Your task to perform on an android device: Open the phone app and click the voicemail tab. Image 0: 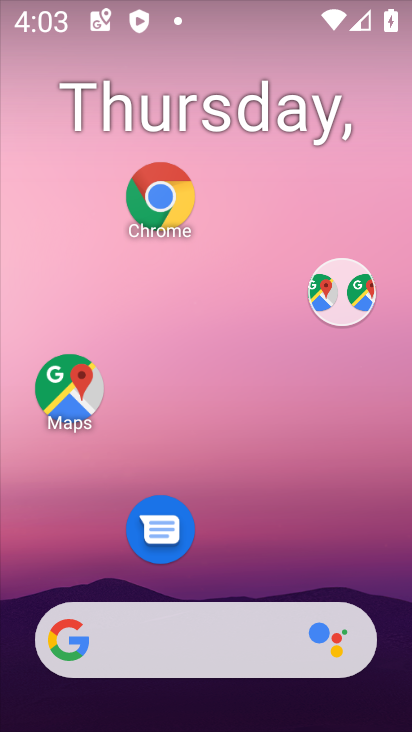
Step 0: drag from (210, 591) to (294, 8)
Your task to perform on an android device: Open the phone app and click the voicemail tab. Image 1: 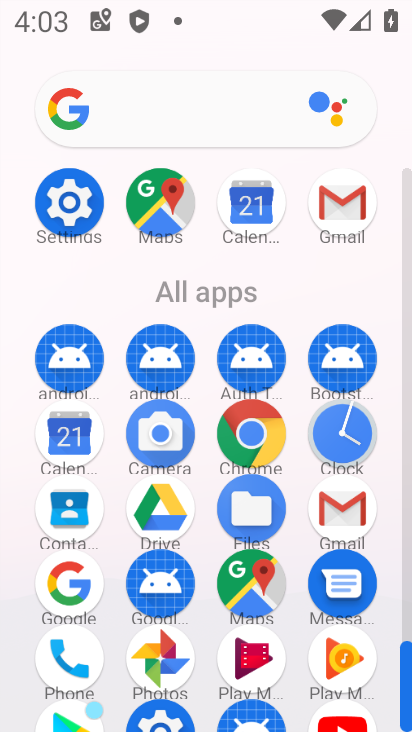
Step 1: drag from (210, 559) to (183, 280)
Your task to perform on an android device: Open the phone app and click the voicemail tab. Image 2: 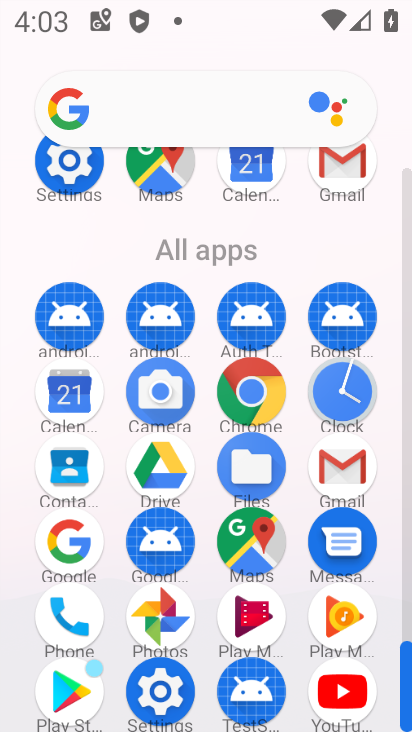
Step 2: click (64, 598)
Your task to perform on an android device: Open the phone app and click the voicemail tab. Image 3: 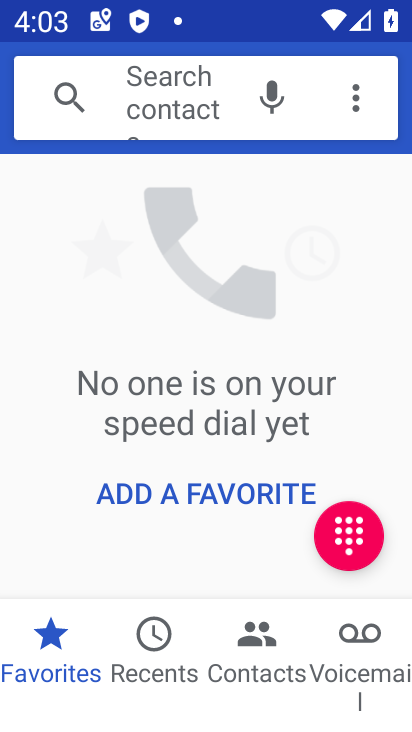
Step 3: click (375, 632)
Your task to perform on an android device: Open the phone app and click the voicemail tab. Image 4: 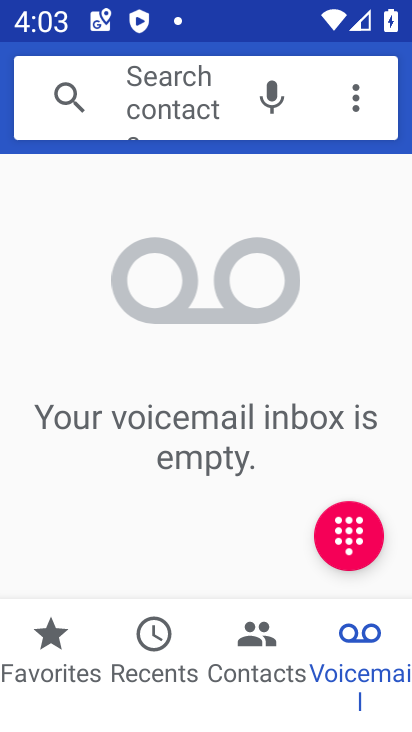
Step 4: task complete